Your task to perform on an android device: Check the weather Image 0: 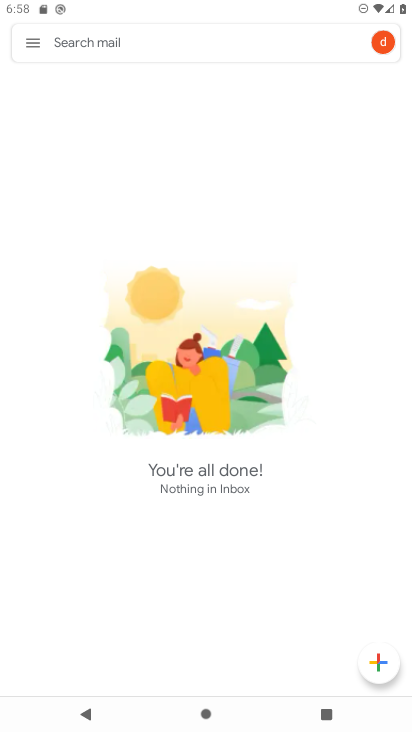
Step 0: press home button
Your task to perform on an android device: Check the weather Image 1: 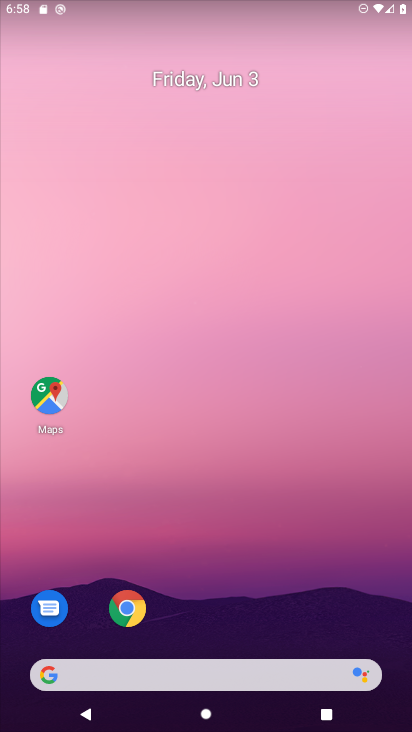
Step 1: click (129, 665)
Your task to perform on an android device: Check the weather Image 2: 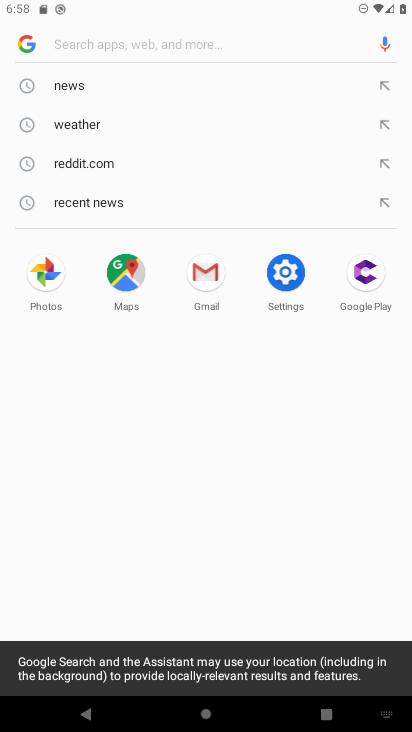
Step 2: click (79, 123)
Your task to perform on an android device: Check the weather Image 3: 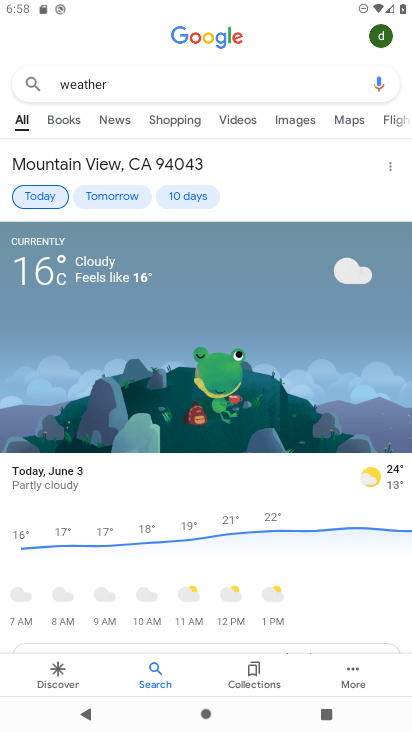
Step 3: task complete